Your task to perform on an android device: uninstall "Google Play Music" Image 0: 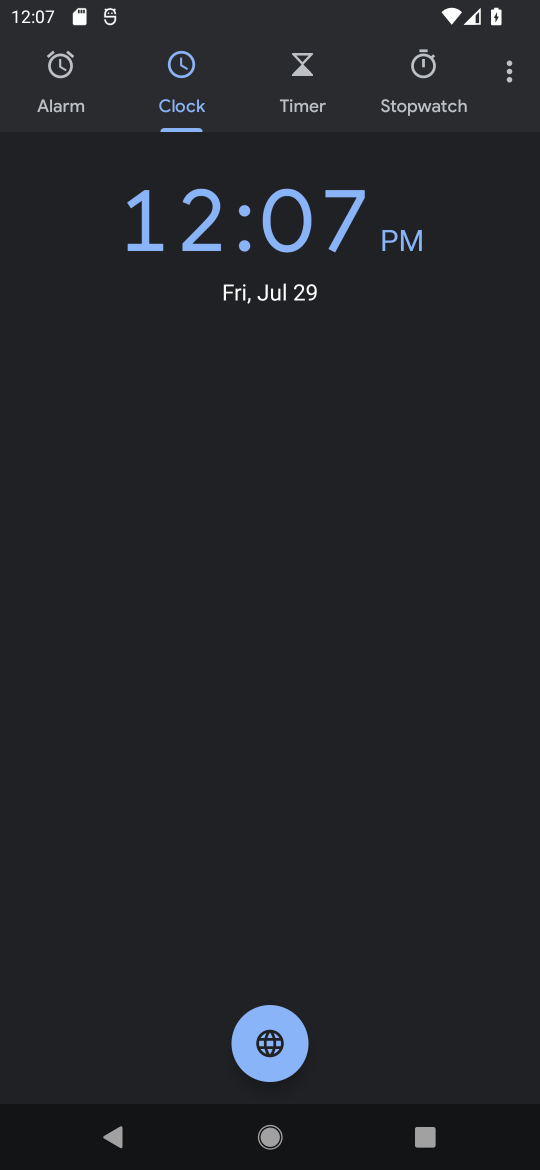
Step 0: press home button
Your task to perform on an android device: uninstall "Google Play Music" Image 1: 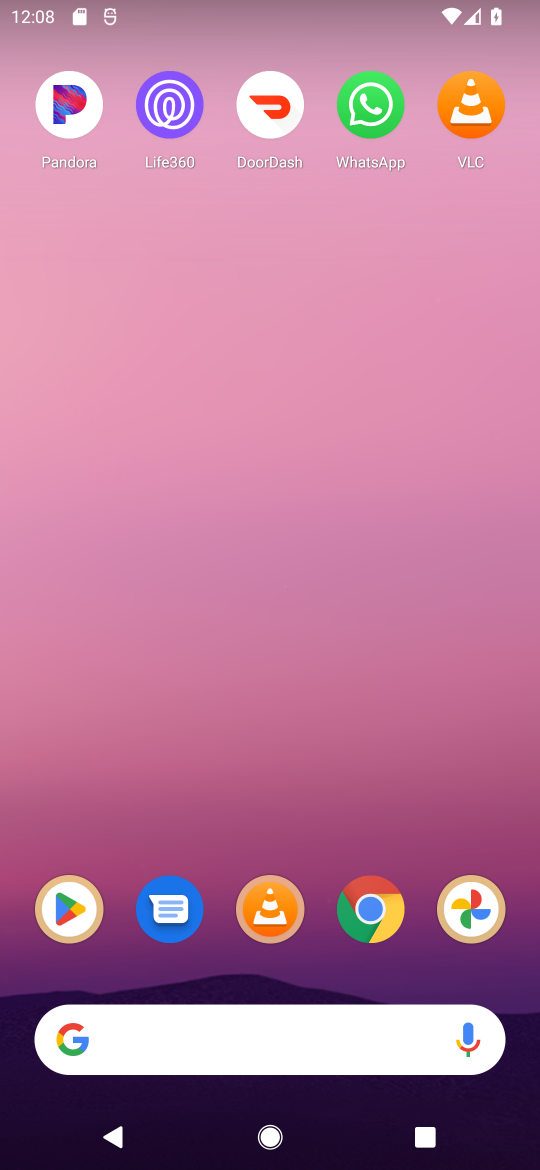
Step 1: click (58, 898)
Your task to perform on an android device: uninstall "Google Play Music" Image 2: 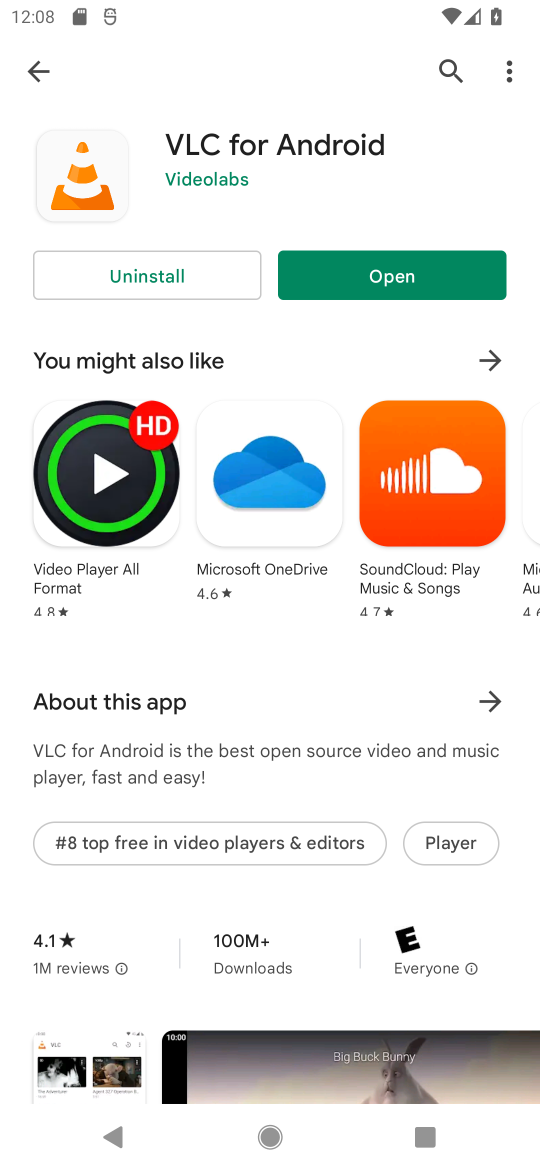
Step 2: click (444, 60)
Your task to perform on an android device: uninstall "Google Play Music" Image 3: 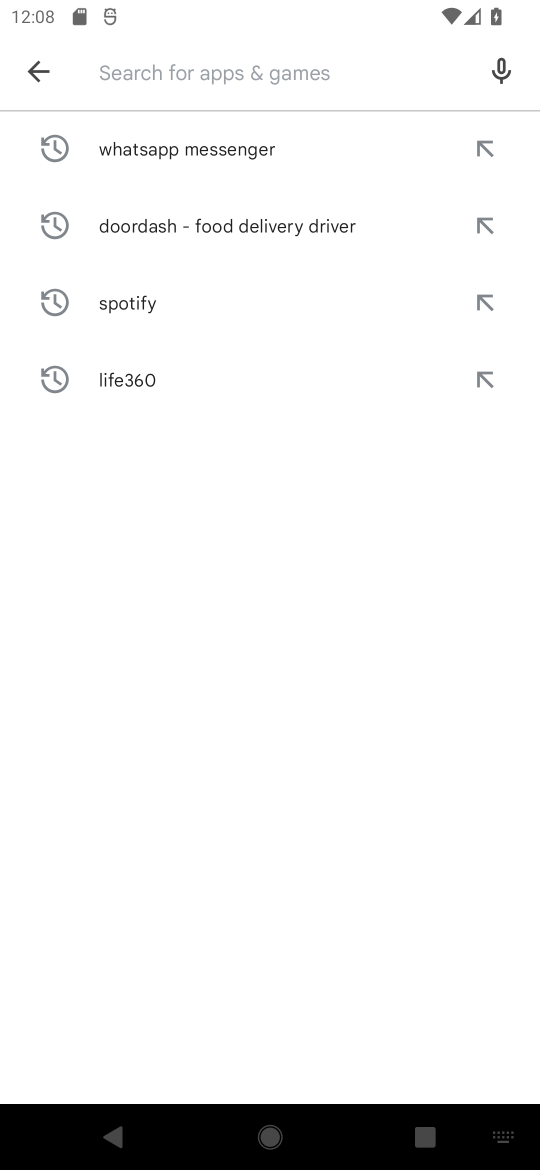
Step 3: click (365, 62)
Your task to perform on an android device: uninstall "Google Play Music" Image 4: 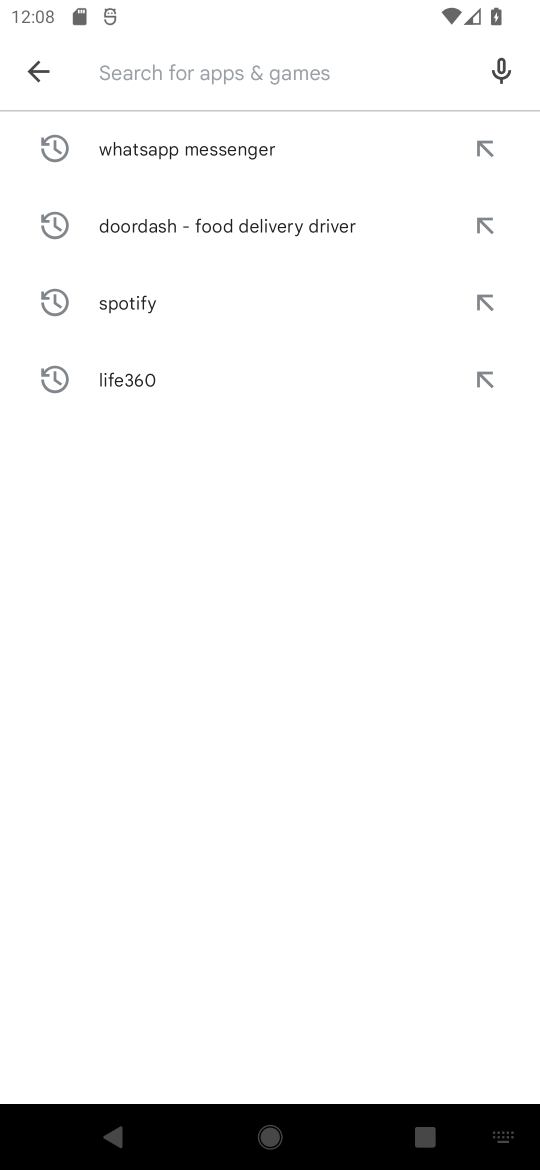
Step 4: type "Google Play Music"
Your task to perform on an android device: uninstall "Google Play Music" Image 5: 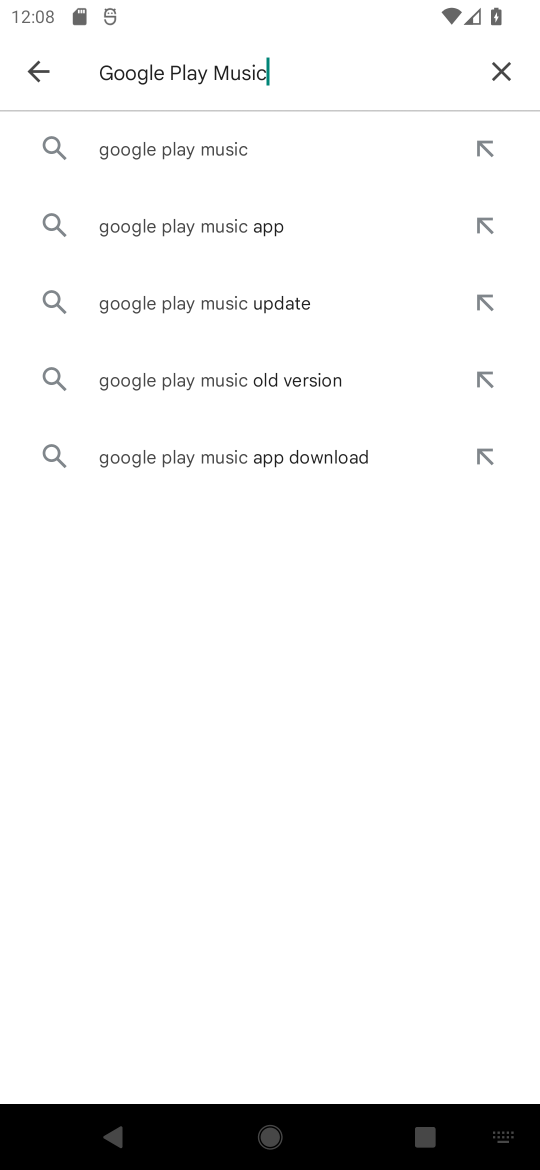
Step 5: click (194, 148)
Your task to perform on an android device: uninstall "Google Play Music" Image 6: 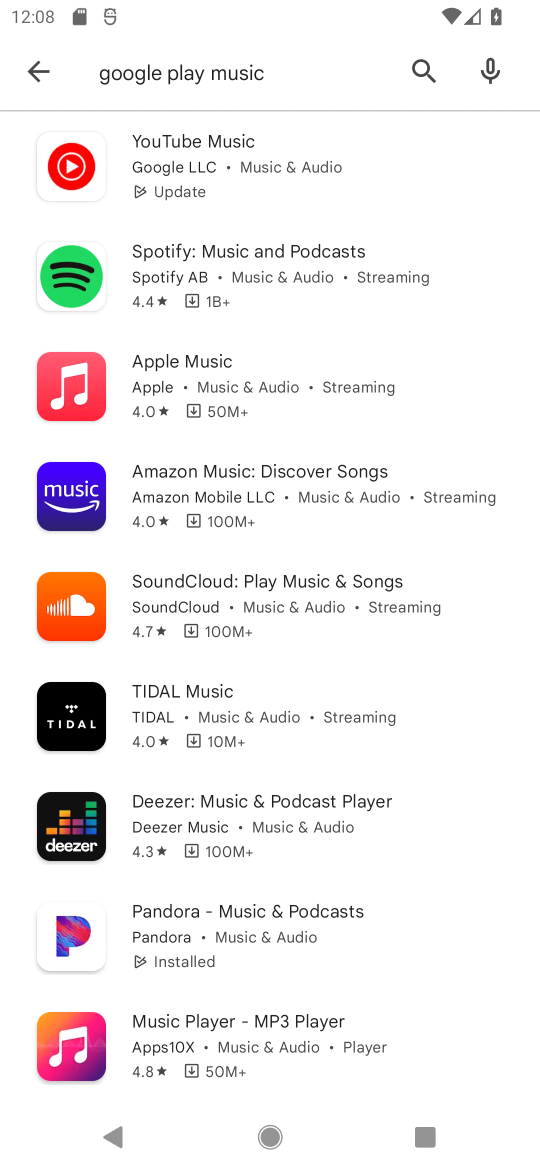
Step 6: task complete